Your task to perform on an android device: toggle notification dots Image 0: 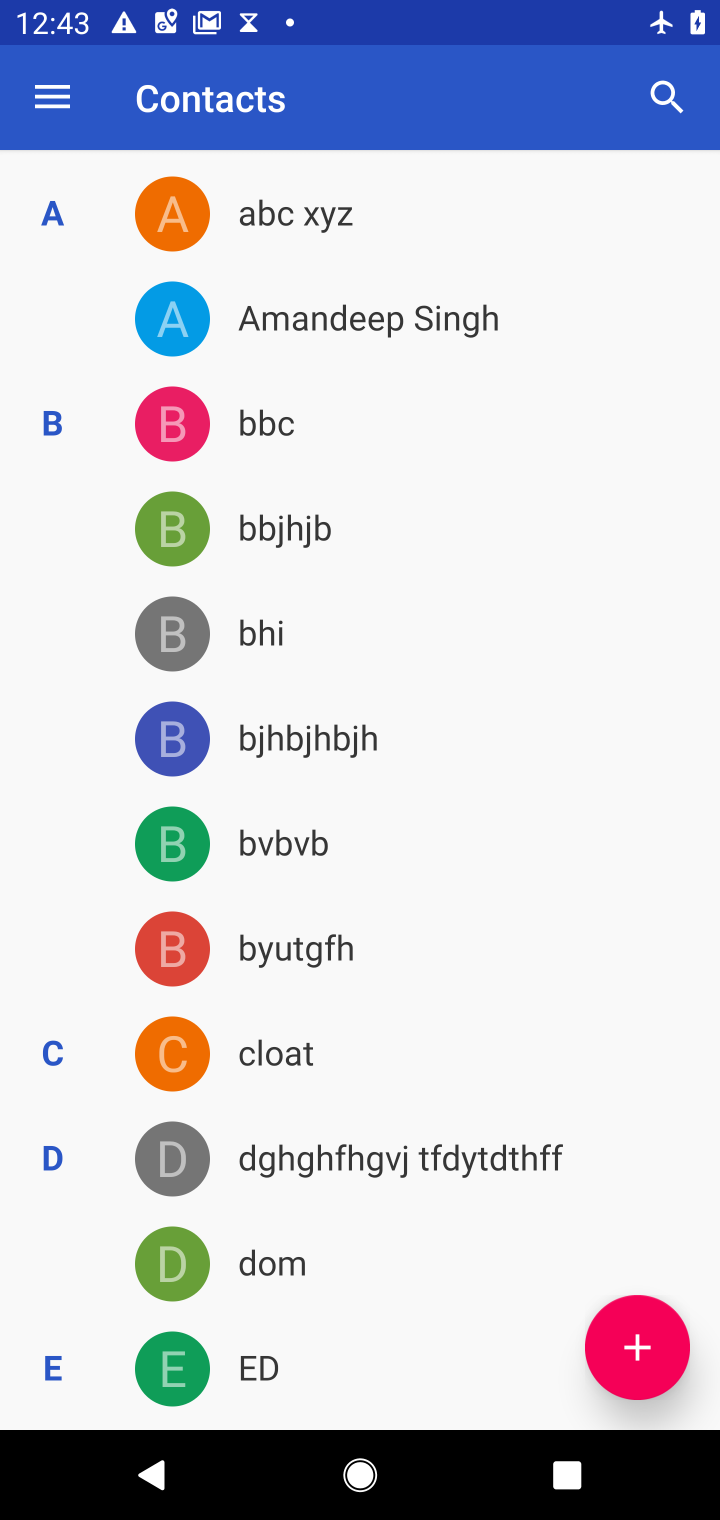
Step 0: press home button
Your task to perform on an android device: toggle notification dots Image 1: 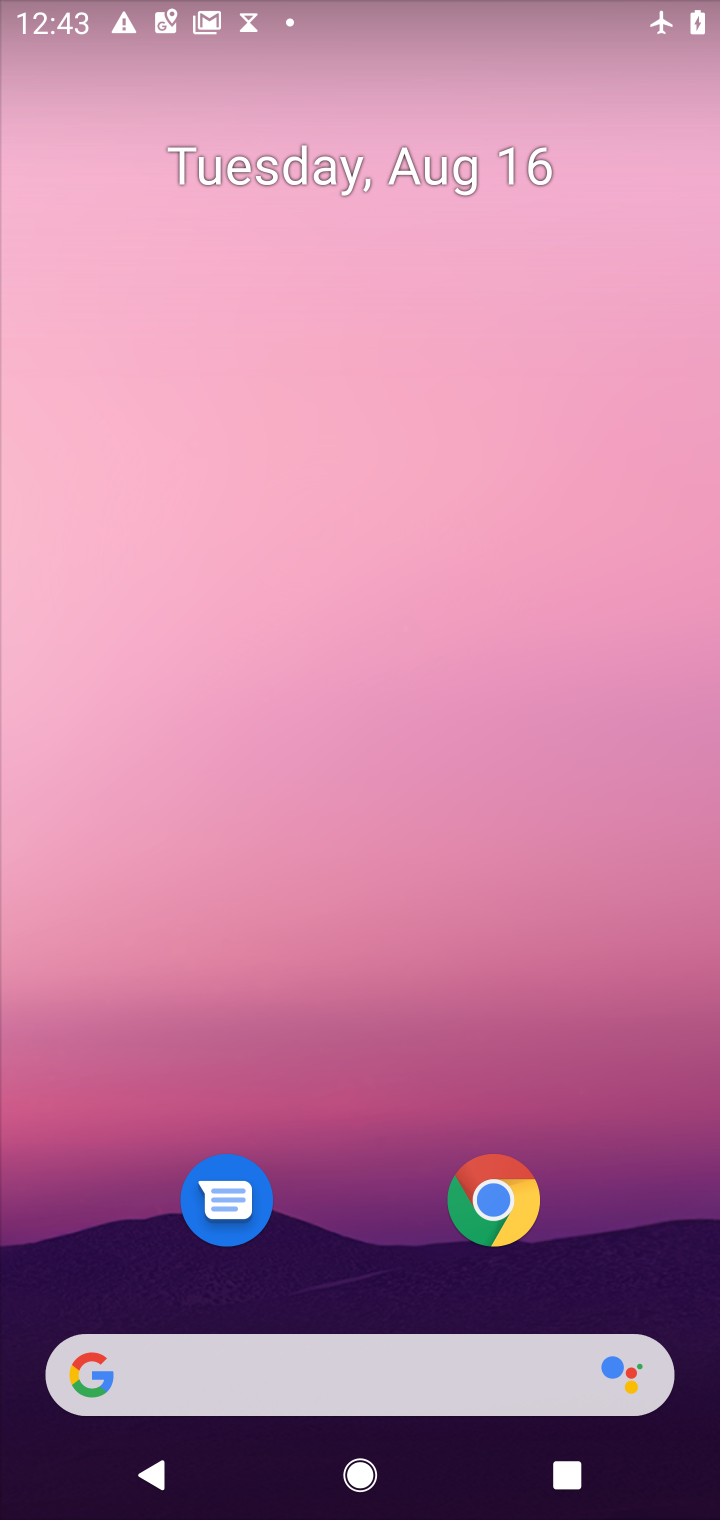
Step 1: drag from (377, 969) to (380, 311)
Your task to perform on an android device: toggle notification dots Image 2: 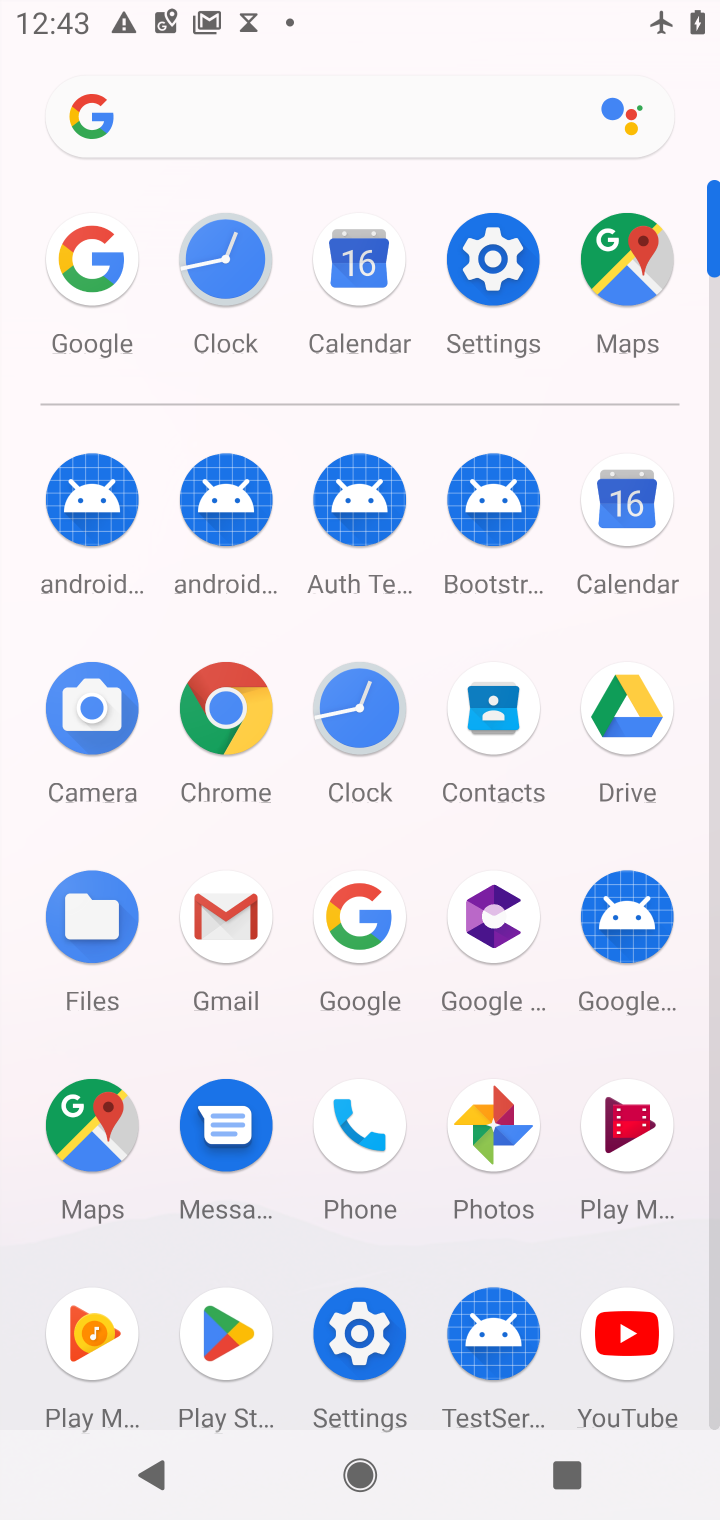
Step 2: click (498, 255)
Your task to perform on an android device: toggle notification dots Image 3: 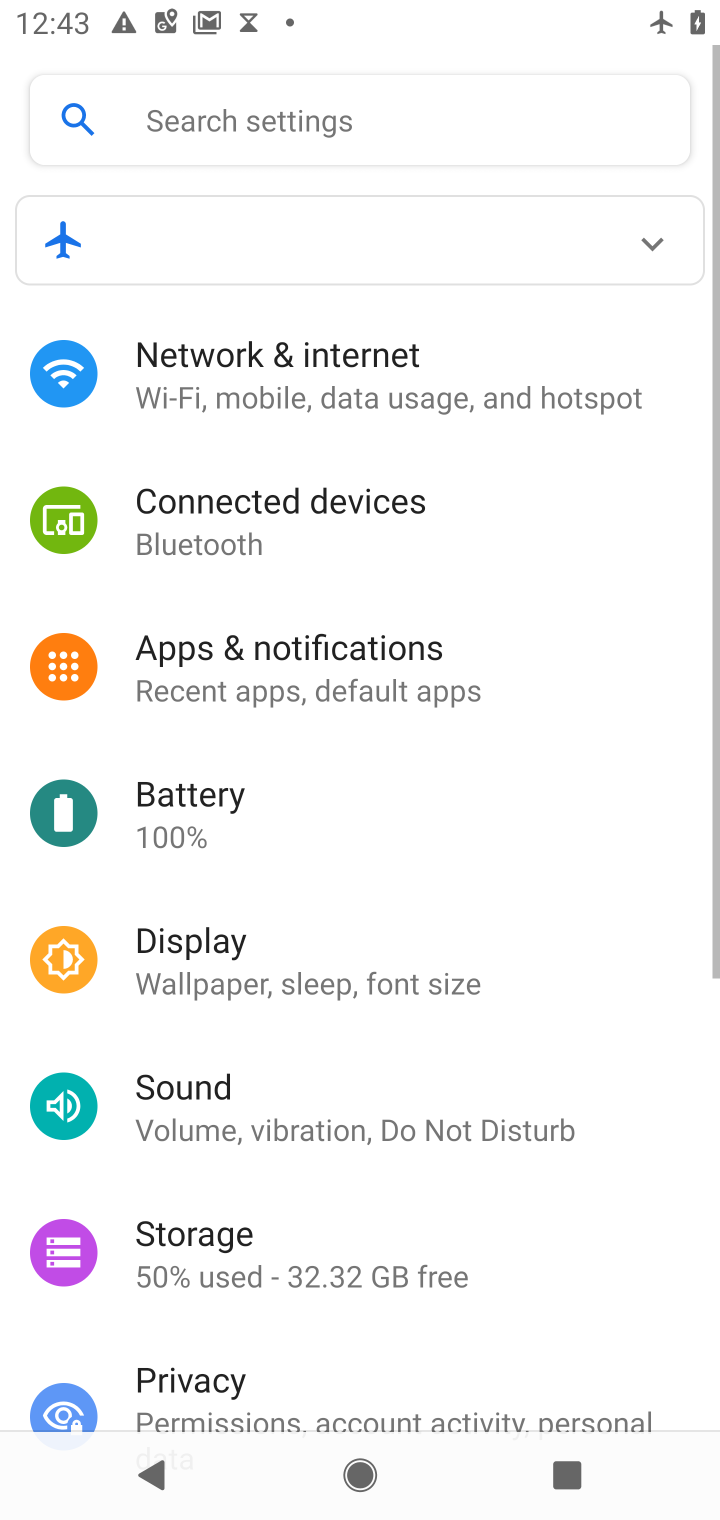
Step 3: click (272, 658)
Your task to perform on an android device: toggle notification dots Image 4: 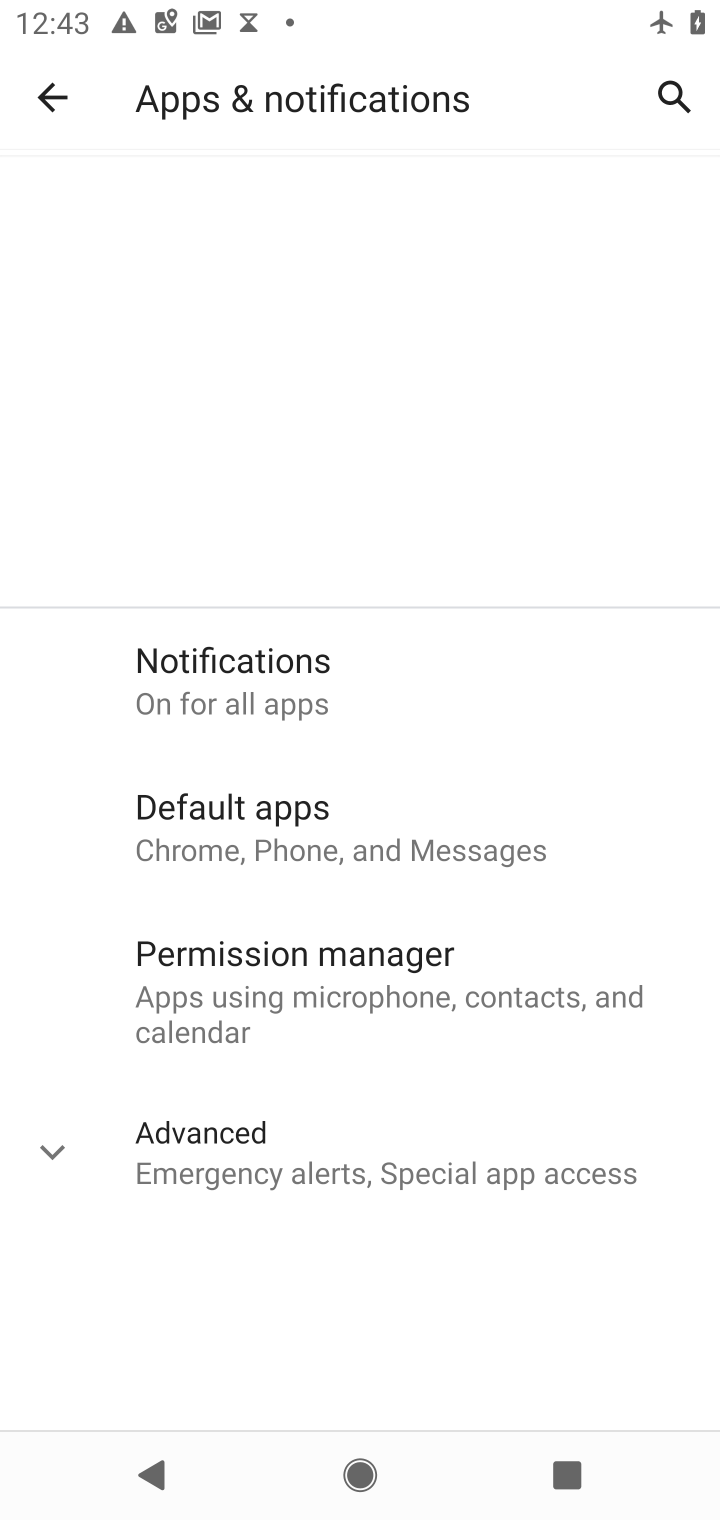
Step 4: click (309, 676)
Your task to perform on an android device: toggle notification dots Image 5: 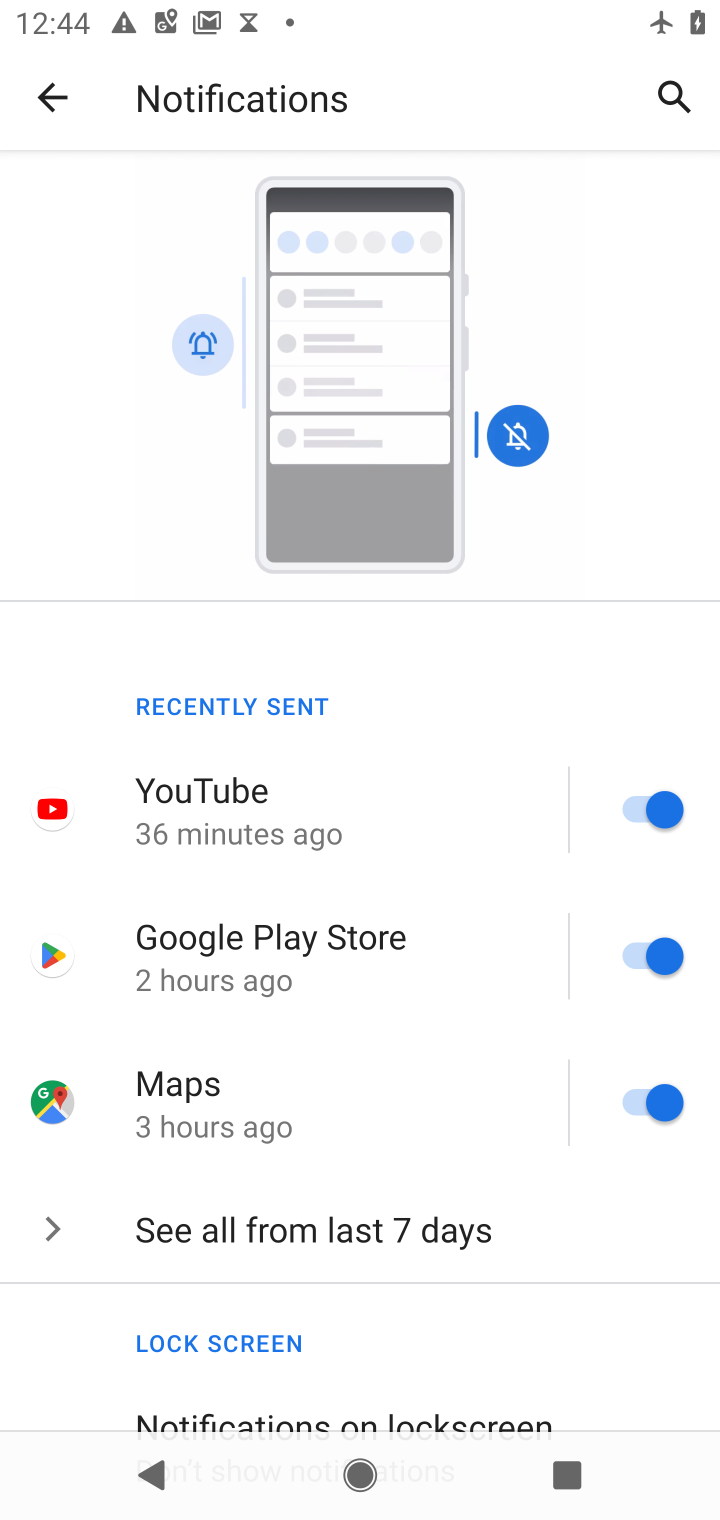
Step 5: drag from (425, 1237) to (387, 649)
Your task to perform on an android device: toggle notification dots Image 6: 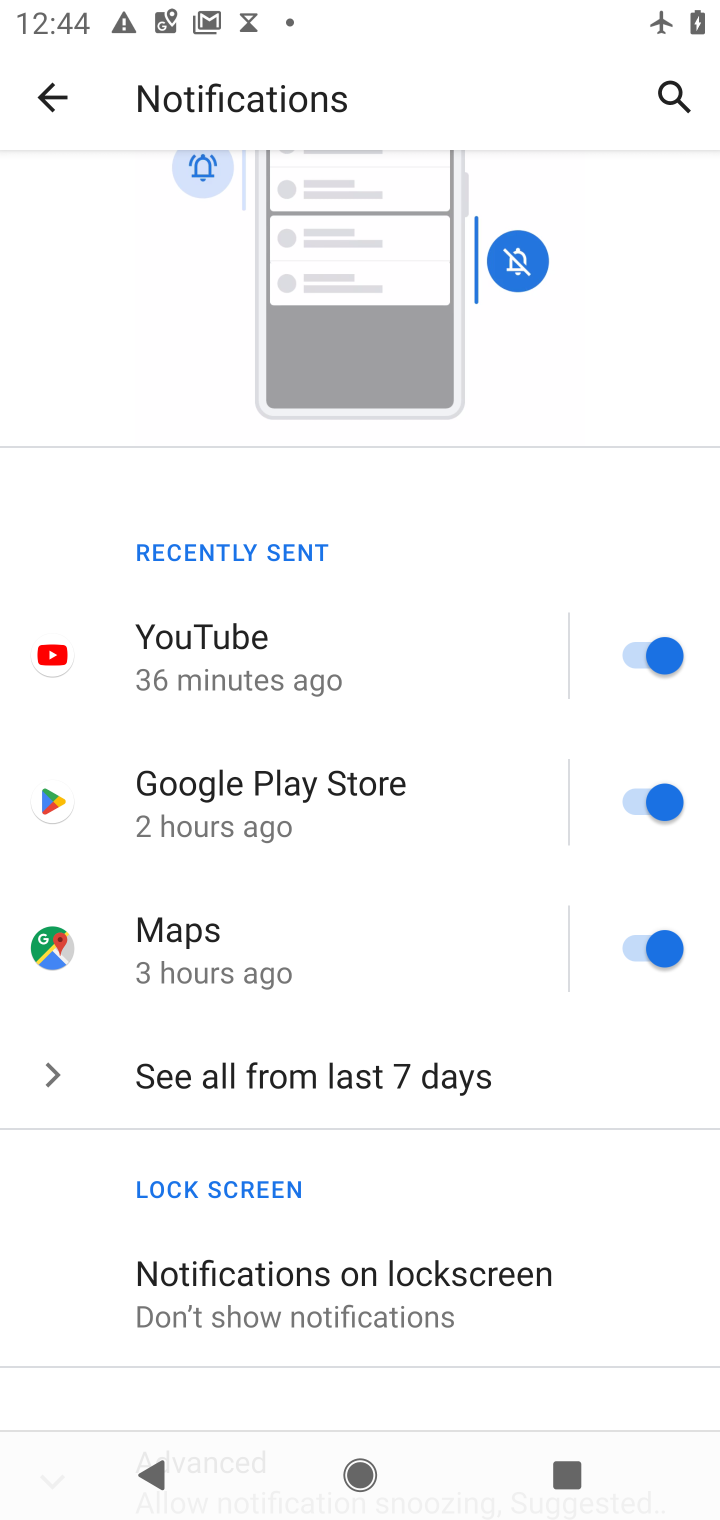
Step 6: drag from (451, 1266) to (415, 537)
Your task to perform on an android device: toggle notification dots Image 7: 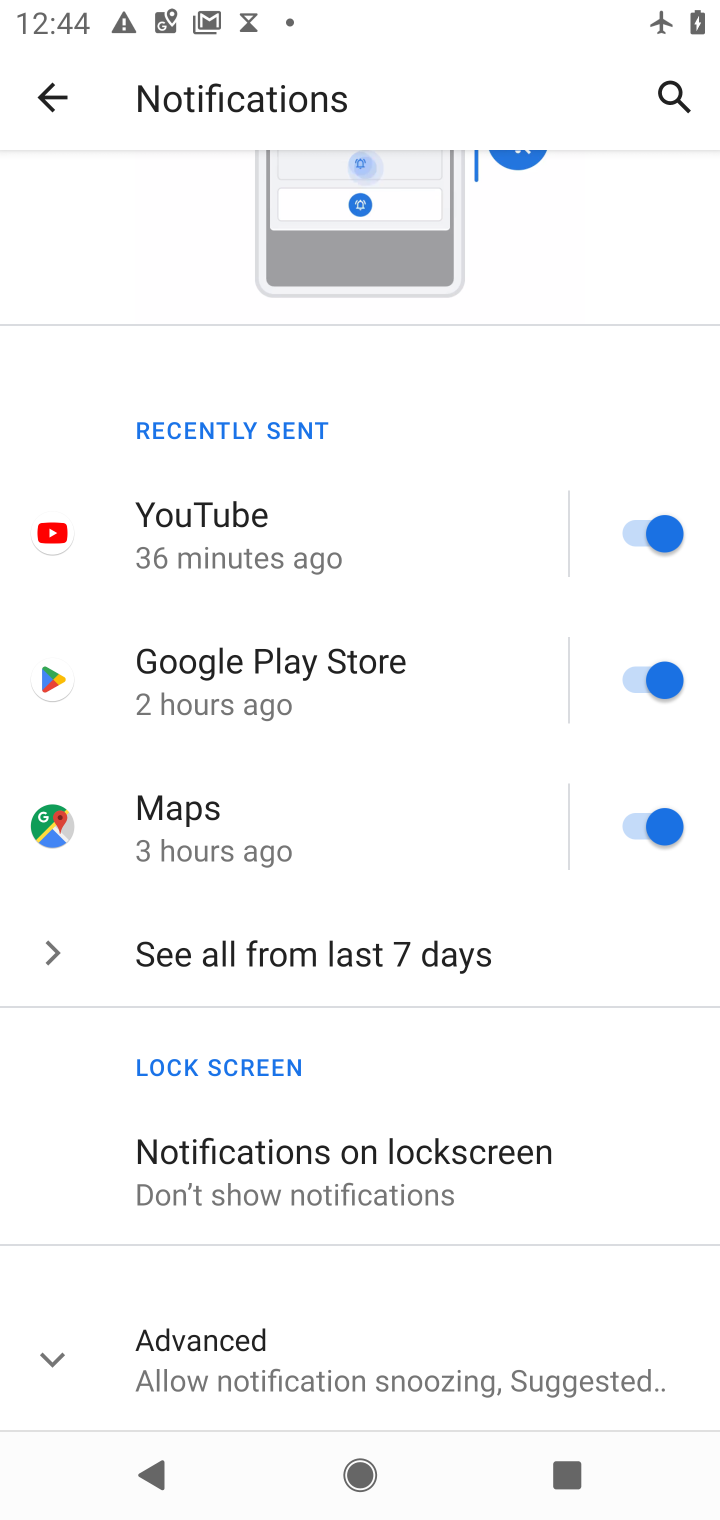
Step 7: drag from (452, 1230) to (452, 646)
Your task to perform on an android device: toggle notification dots Image 8: 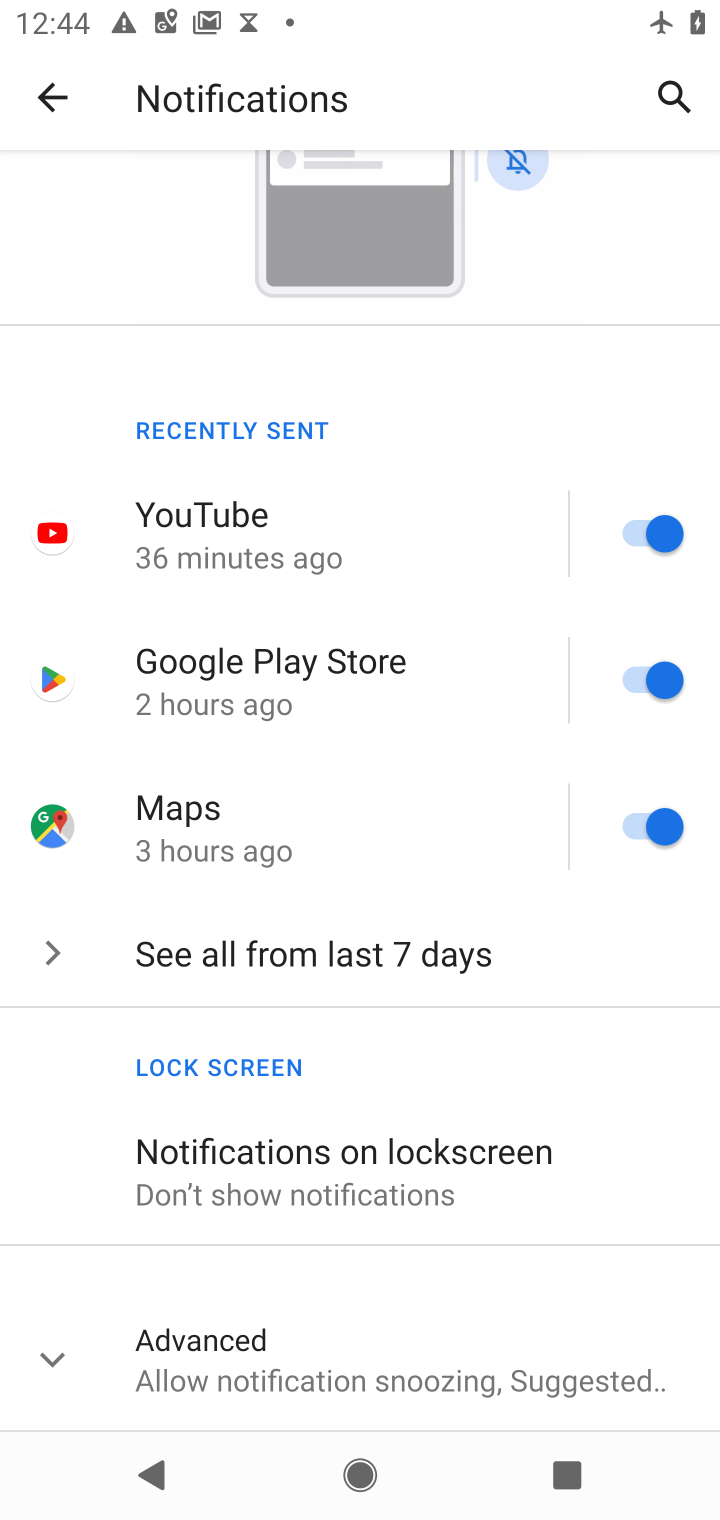
Step 8: click (304, 1333)
Your task to perform on an android device: toggle notification dots Image 9: 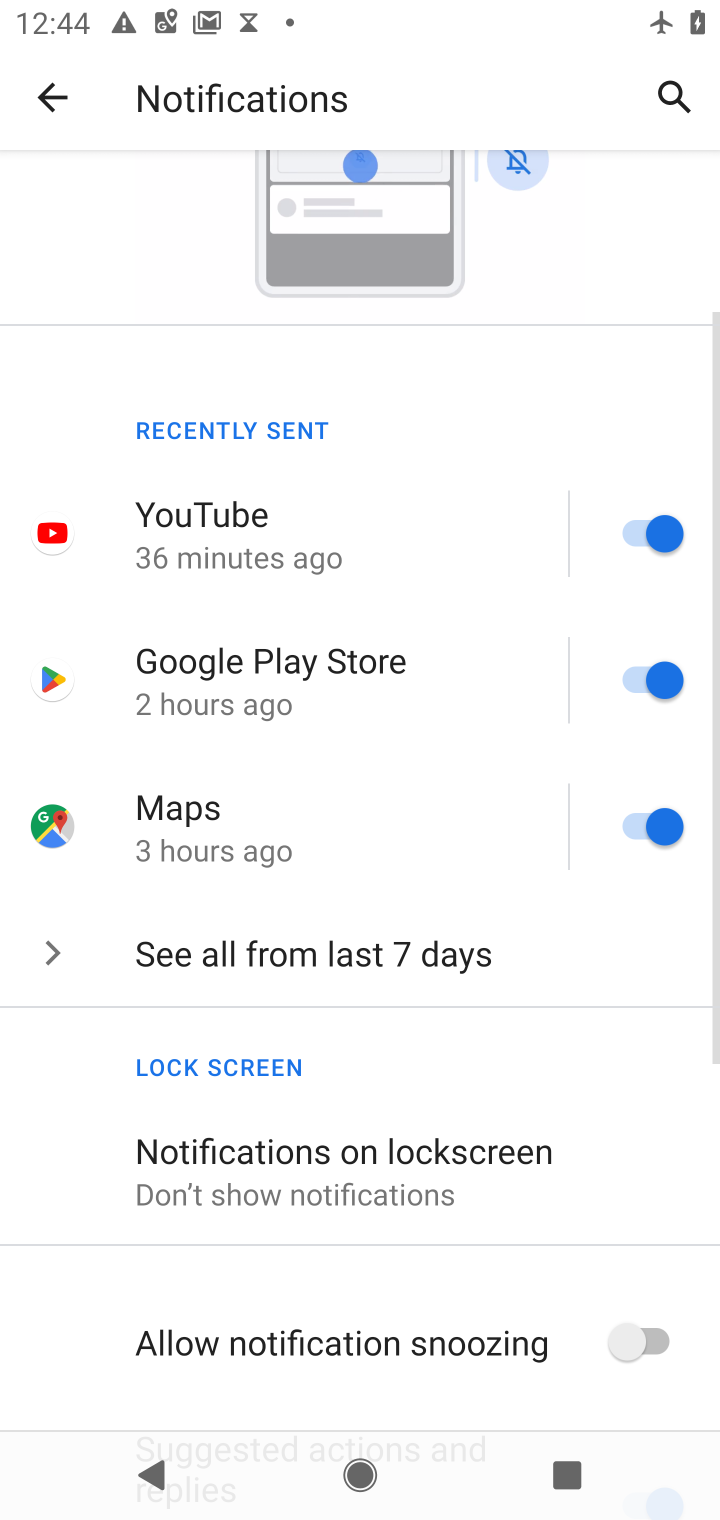
Step 9: drag from (397, 1215) to (397, 437)
Your task to perform on an android device: toggle notification dots Image 10: 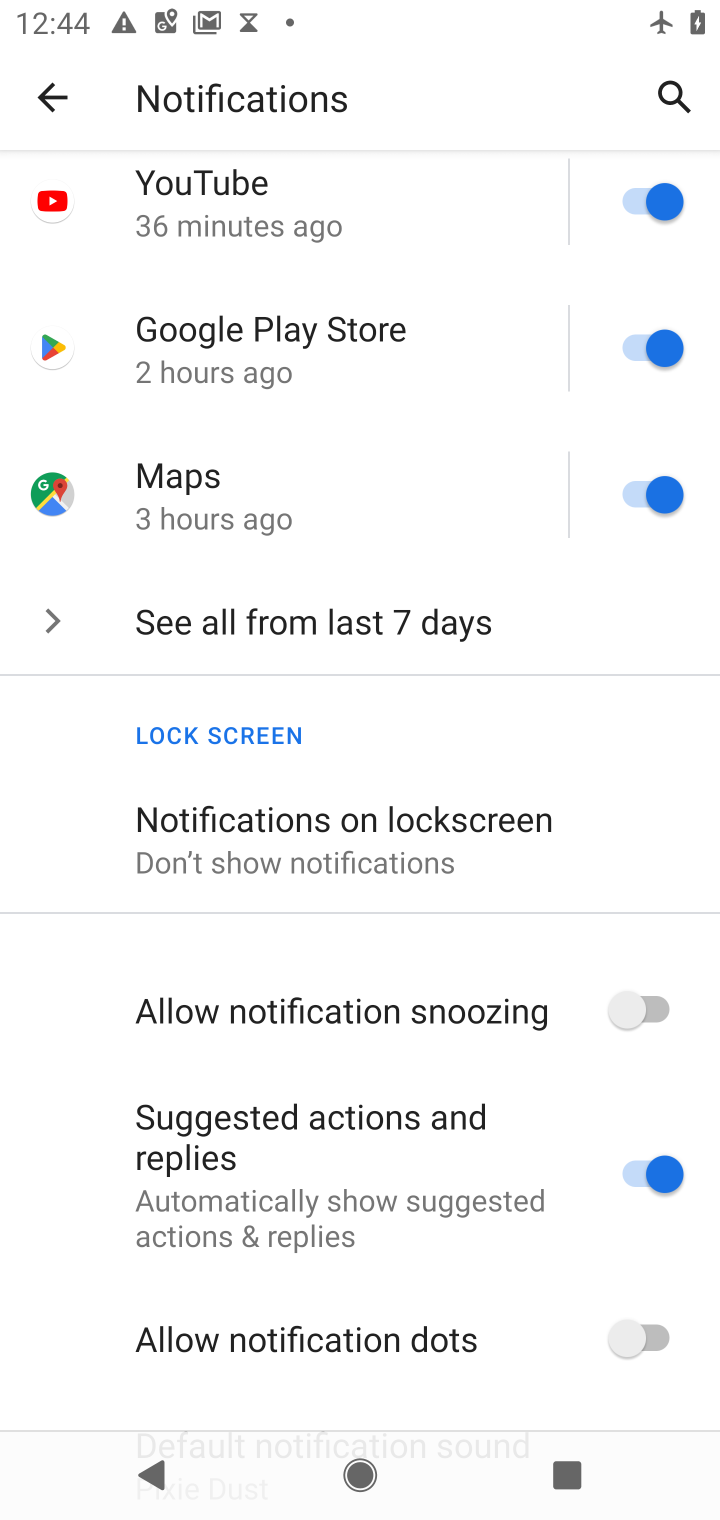
Step 10: click (648, 1327)
Your task to perform on an android device: toggle notification dots Image 11: 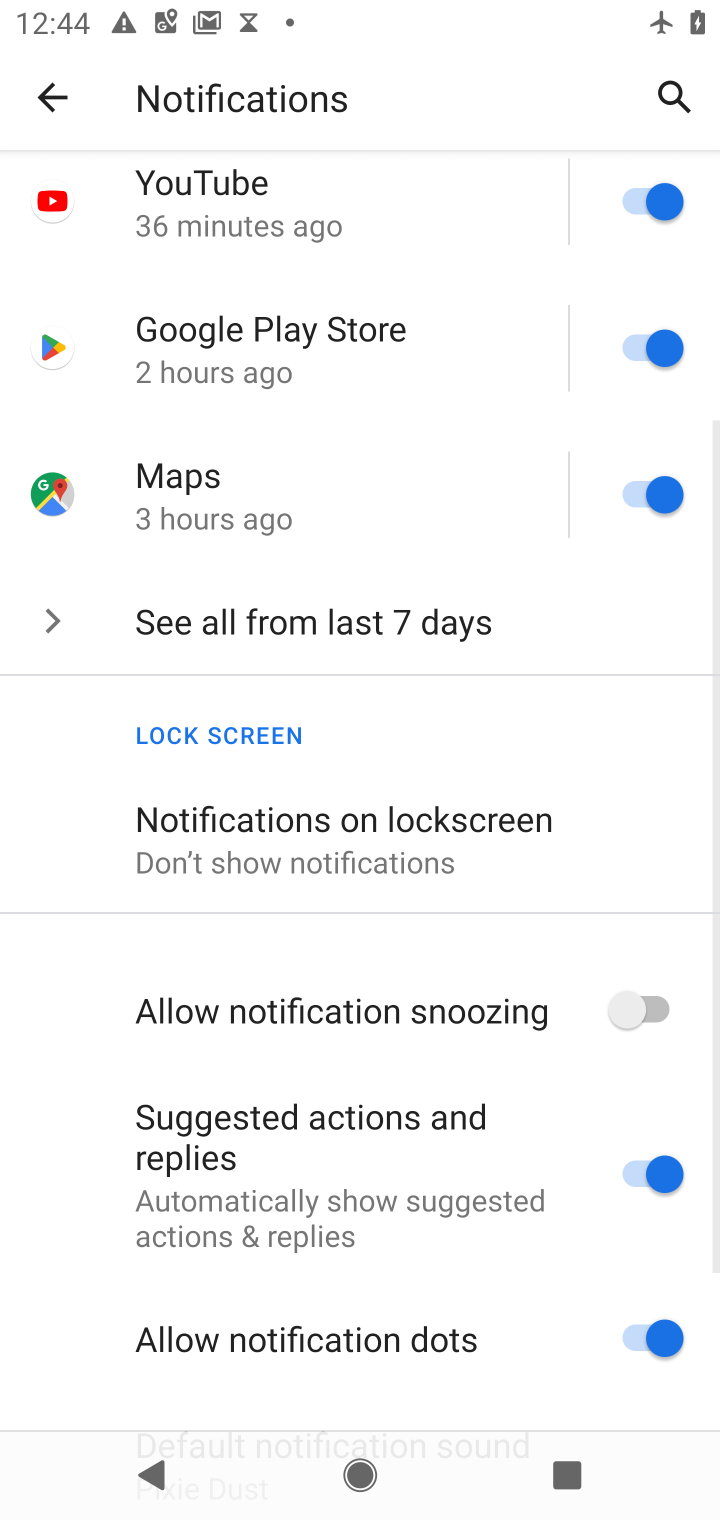
Step 11: task complete